Your task to perform on an android device: When is my next meeting? Image 0: 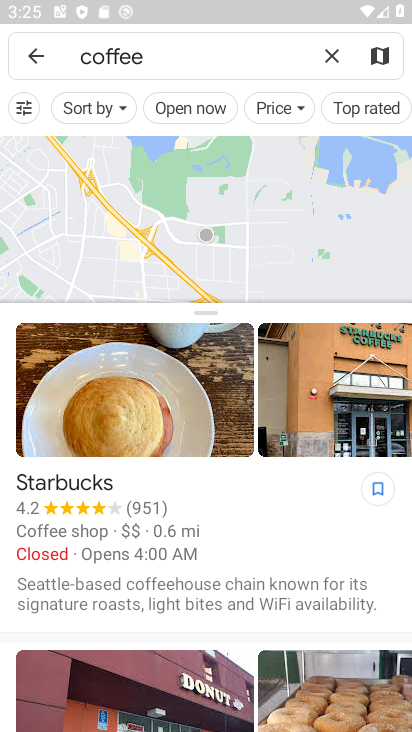
Step 0: press home button
Your task to perform on an android device: When is my next meeting? Image 1: 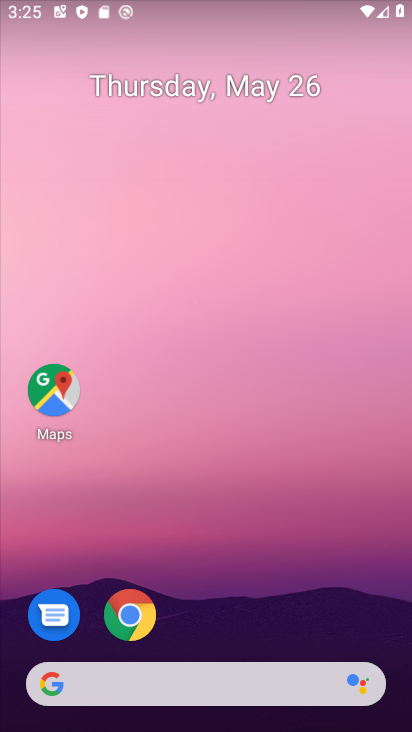
Step 1: drag from (261, 585) to (193, 180)
Your task to perform on an android device: When is my next meeting? Image 2: 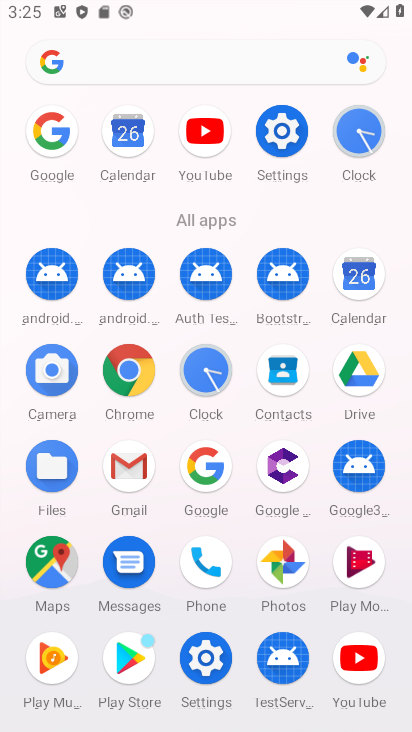
Step 2: click (361, 279)
Your task to perform on an android device: When is my next meeting? Image 3: 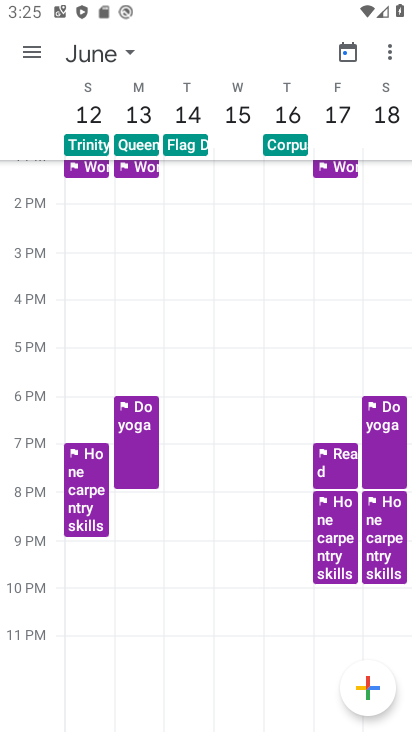
Step 3: click (111, 50)
Your task to perform on an android device: When is my next meeting? Image 4: 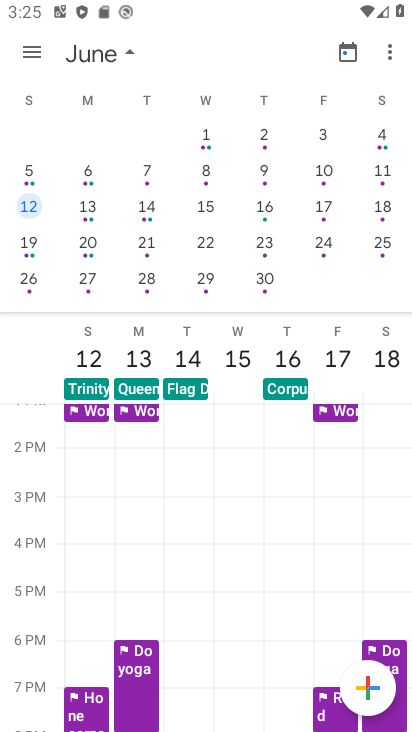
Step 4: click (190, 165)
Your task to perform on an android device: When is my next meeting? Image 5: 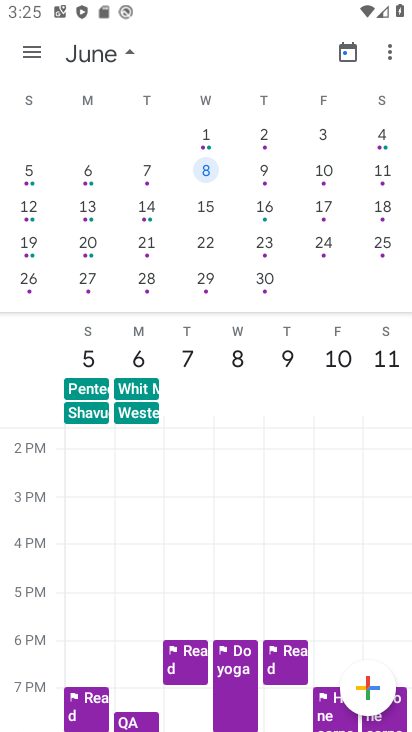
Step 5: click (86, 165)
Your task to perform on an android device: When is my next meeting? Image 6: 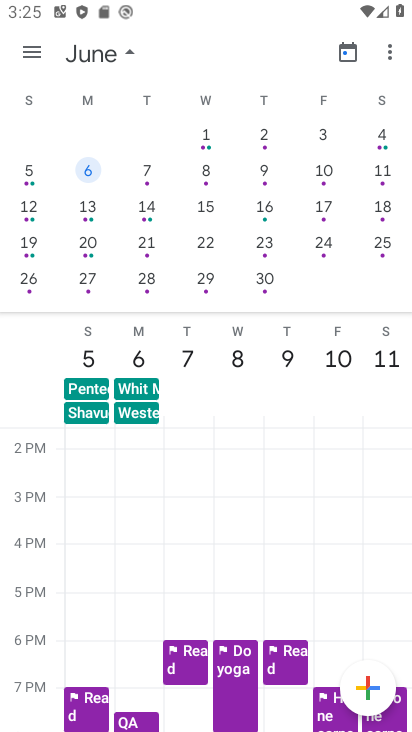
Step 6: drag from (220, 555) to (199, 325)
Your task to perform on an android device: When is my next meeting? Image 7: 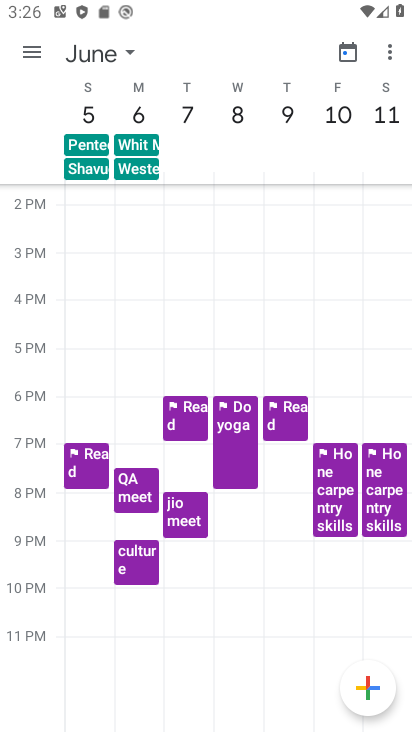
Step 7: click (132, 497)
Your task to perform on an android device: When is my next meeting? Image 8: 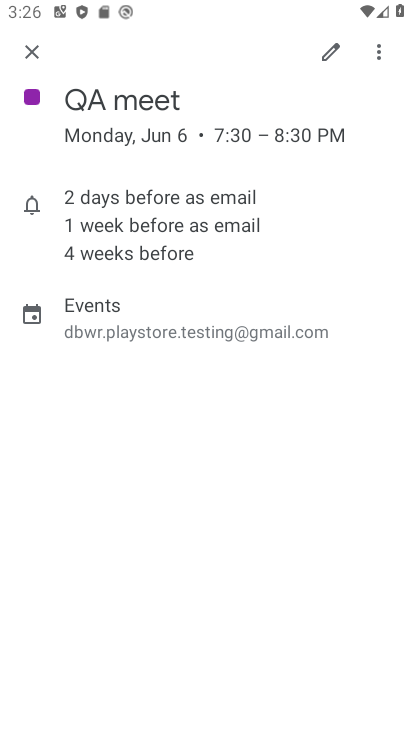
Step 8: task complete